Your task to perform on an android device: Open Wikipedia Image 0: 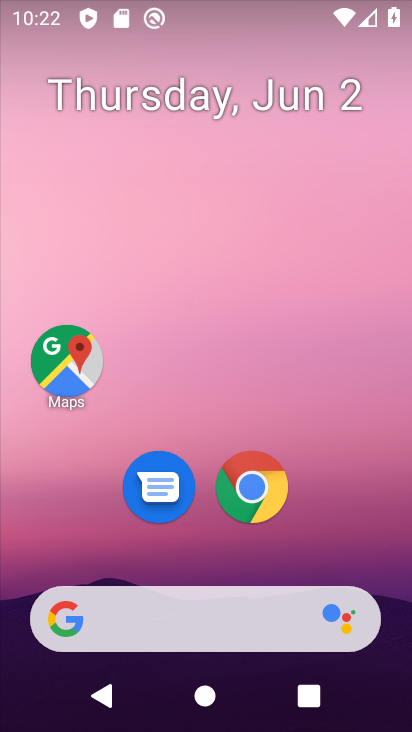
Step 0: drag from (291, 656) to (248, 68)
Your task to perform on an android device: Open Wikipedia Image 1: 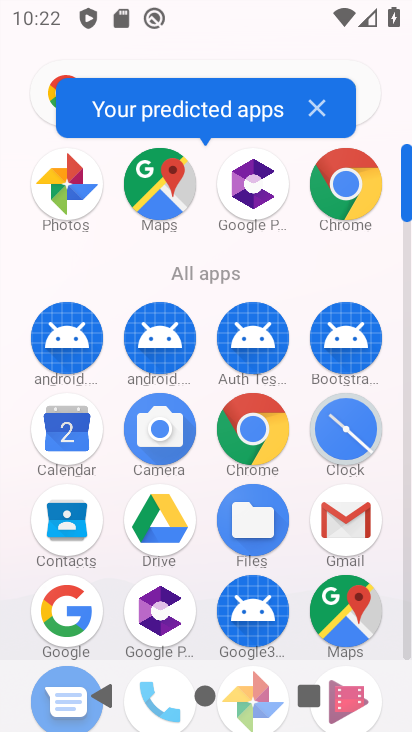
Step 1: click (344, 171)
Your task to perform on an android device: Open Wikipedia Image 2: 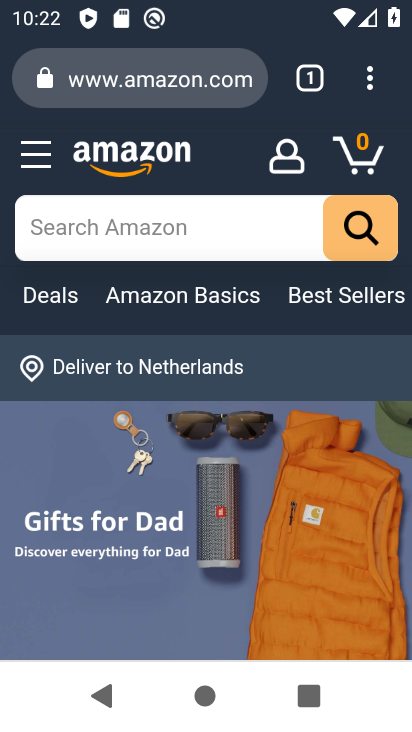
Step 2: click (373, 78)
Your task to perform on an android device: Open Wikipedia Image 3: 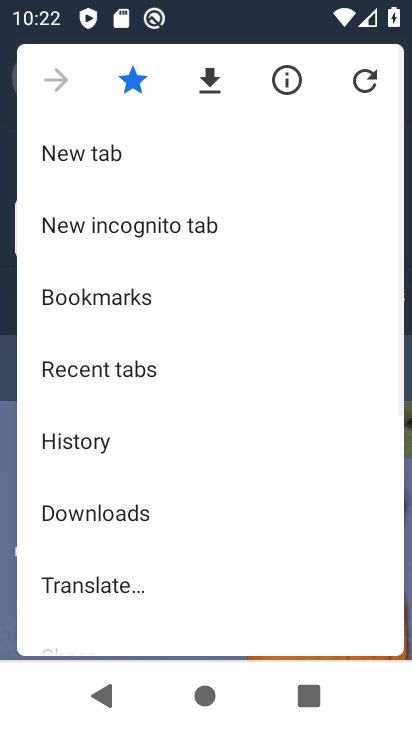
Step 3: click (156, 144)
Your task to perform on an android device: Open Wikipedia Image 4: 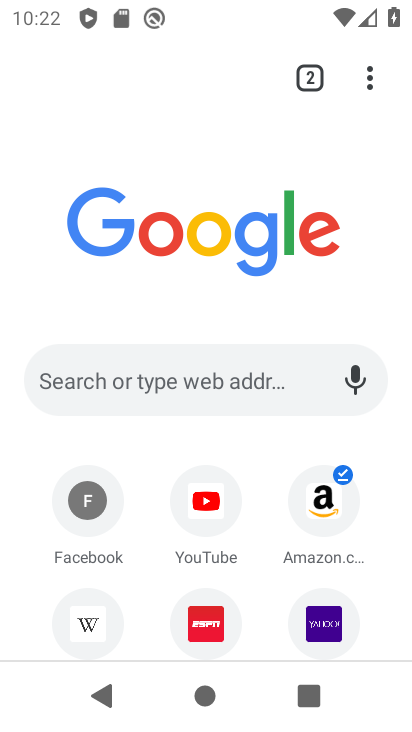
Step 4: click (95, 611)
Your task to perform on an android device: Open Wikipedia Image 5: 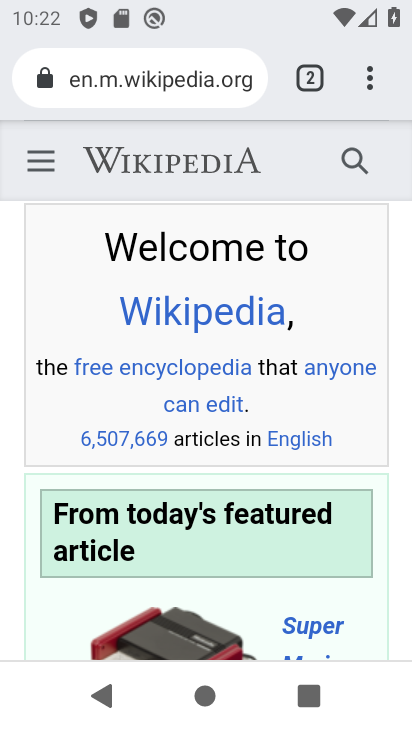
Step 5: task complete